Your task to perform on an android device: find which apps use the phone's location Image 0: 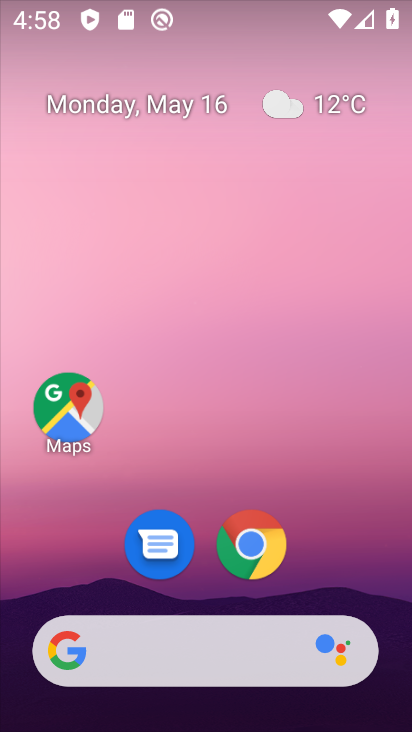
Step 0: drag from (328, 571) to (318, 116)
Your task to perform on an android device: find which apps use the phone's location Image 1: 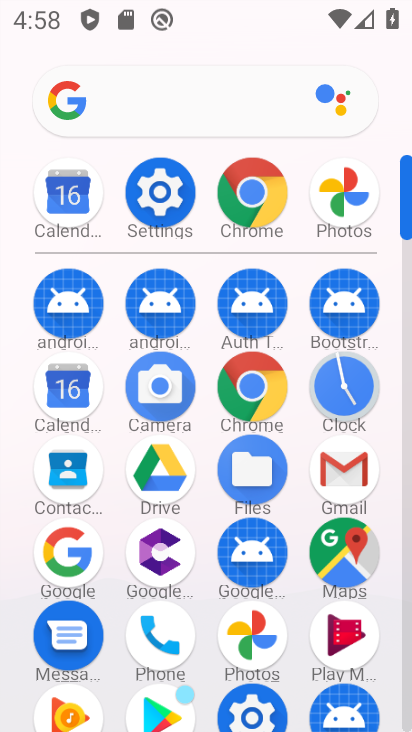
Step 1: click (157, 193)
Your task to perform on an android device: find which apps use the phone's location Image 2: 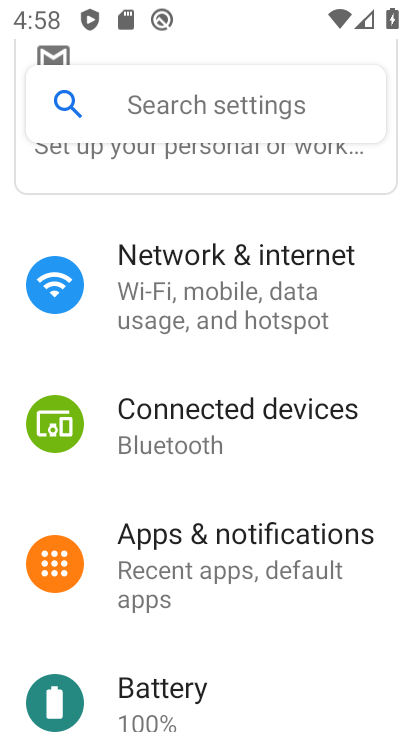
Step 2: drag from (229, 502) to (257, 430)
Your task to perform on an android device: find which apps use the phone's location Image 3: 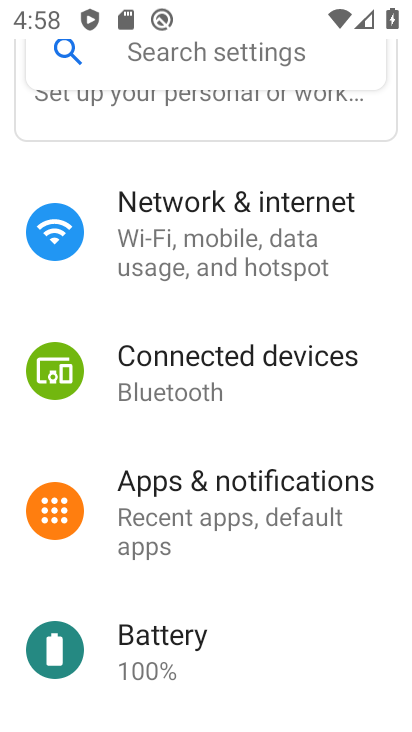
Step 3: drag from (215, 544) to (255, 452)
Your task to perform on an android device: find which apps use the phone's location Image 4: 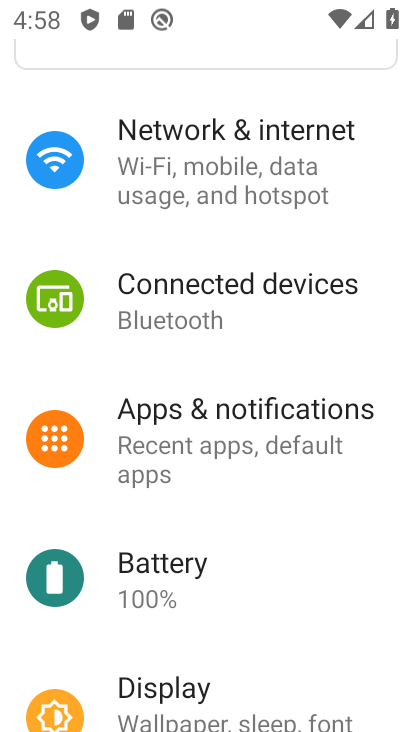
Step 4: drag from (215, 615) to (266, 512)
Your task to perform on an android device: find which apps use the phone's location Image 5: 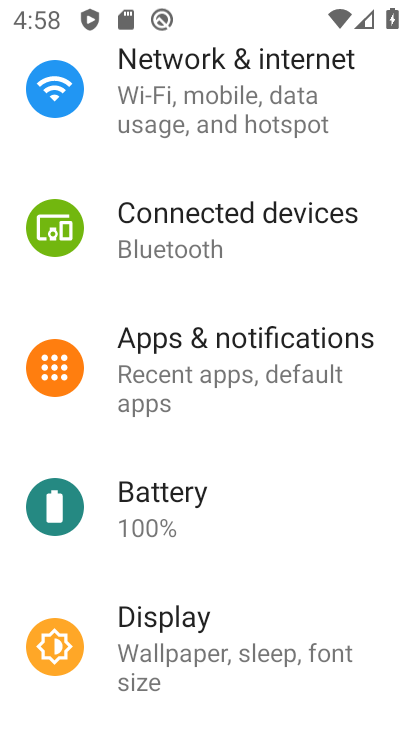
Step 5: drag from (234, 580) to (262, 456)
Your task to perform on an android device: find which apps use the phone's location Image 6: 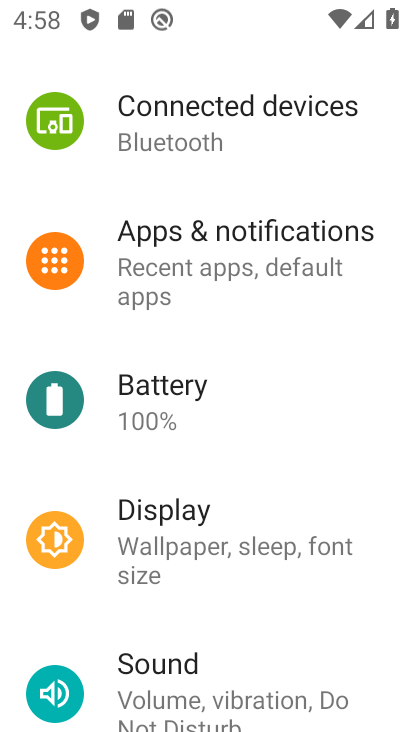
Step 6: drag from (188, 601) to (227, 501)
Your task to perform on an android device: find which apps use the phone's location Image 7: 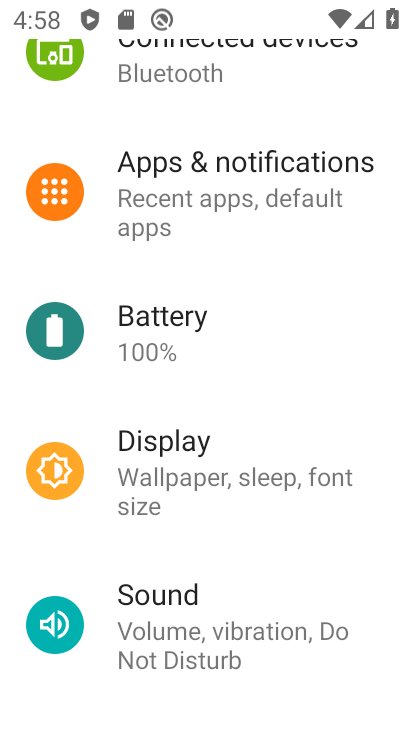
Step 7: drag from (225, 566) to (293, 464)
Your task to perform on an android device: find which apps use the phone's location Image 8: 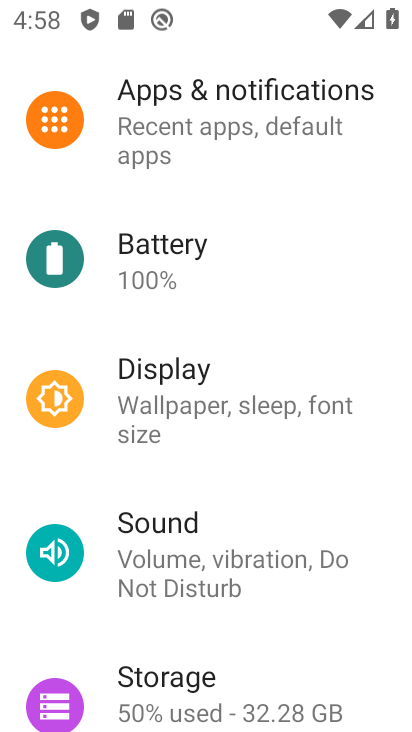
Step 8: drag from (224, 511) to (269, 422)
Your task to perform on an android device: find which apps use the phone's location Image 9: 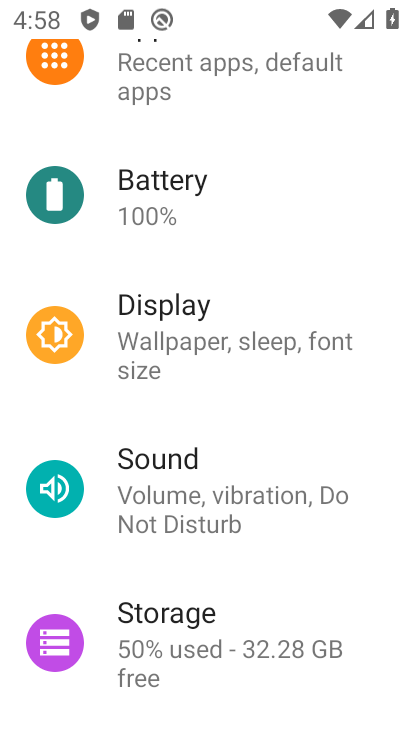
Step 9: drag from (170, 565) to (234, 447)
Your task to perform on an android device: find which apps use the phone's location Image 10: 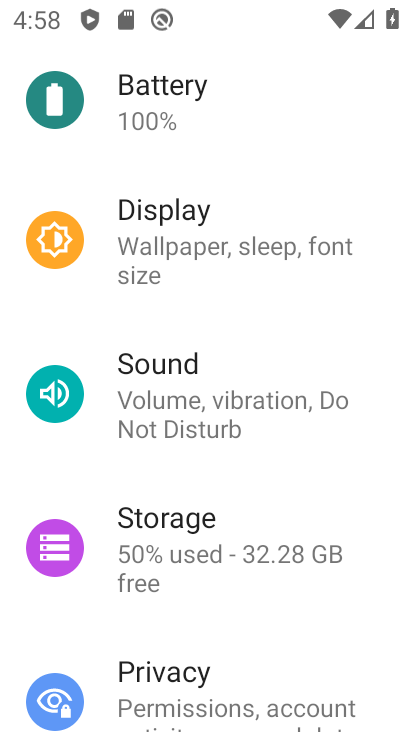
Step 10: drag from (145, 621) to (224, 487)
Your task to perform on an android device: find which apps use the phone's location Image 11: 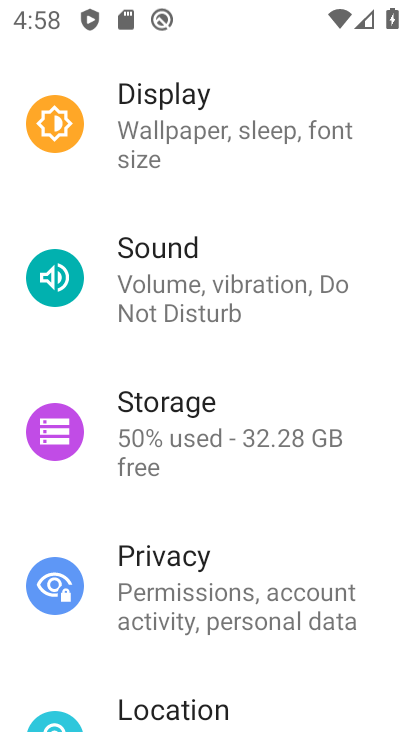
Step 11: drag from (161, 507) to (208, 376)
Your task to perform on an android device: find which apps use the phone's location Image 12: 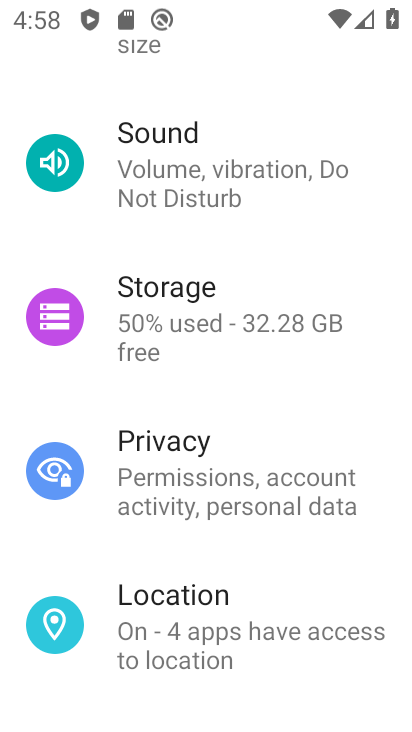
Step 12: click (158, 597)
Your task to perform on an android device: find which apps use the phone's location Image 13: 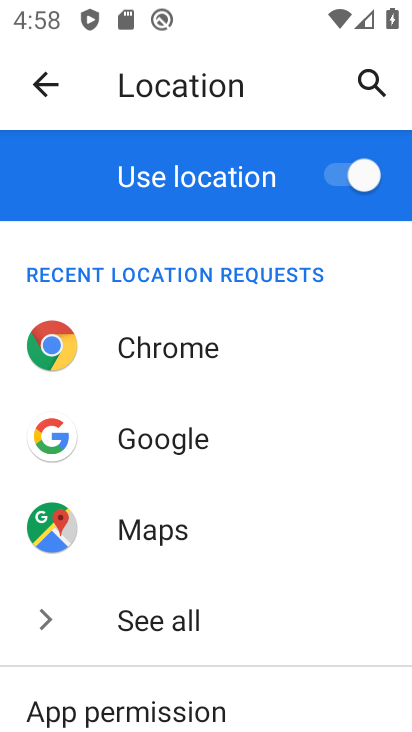
Step 13: drag from (202, 635) to (261, 524)
Your task to perform on an android device: find which apps use the phone's location Image 14: 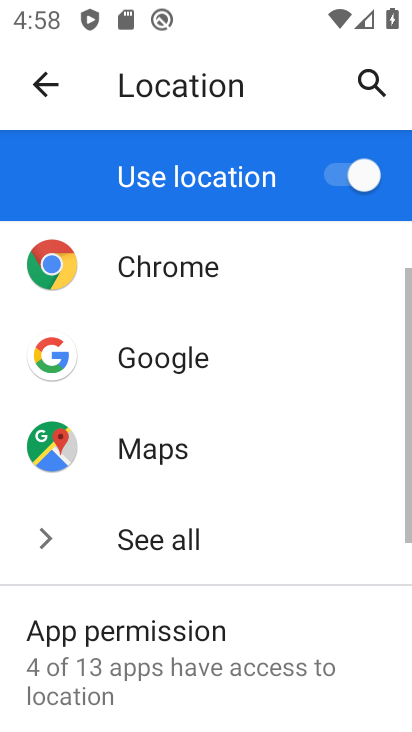
Step 14: drag from (177, 664) to (262, 536)
Your task to perform on an android device: find which apps use the phone's location Image 15: 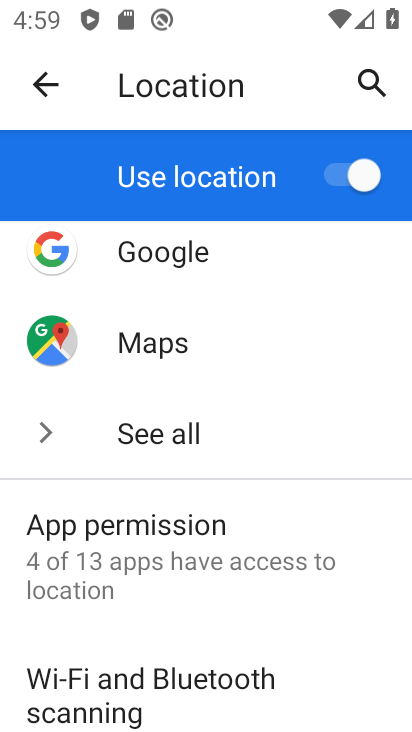
Step 15: drag from (183, 662) to (277, 523)
Your task to perform on an android device: find which apps use the phone's location Image 16: 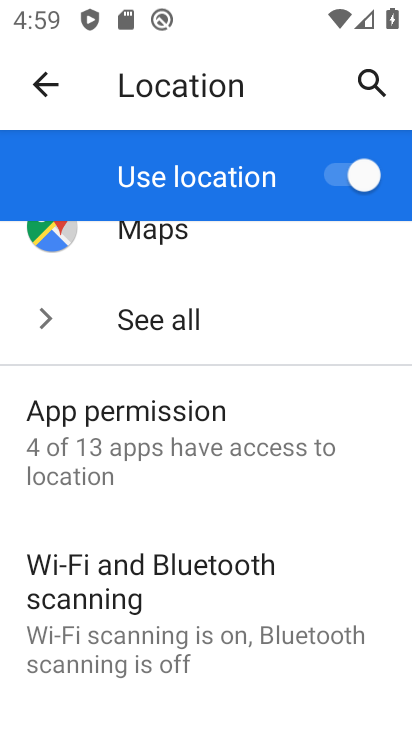
Step 16: drag from (195, 603) to (283, 499)
Your task to perform on an android device: find which apps use the phone's location Image 17: 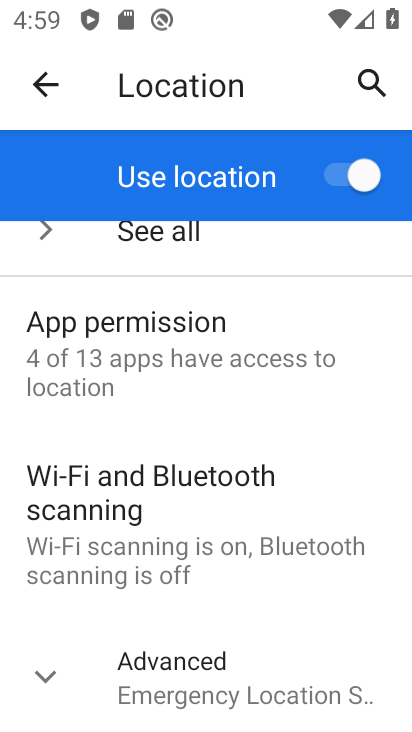
Step 17: click (210, 350)
Your task to perform on an android device: find which apps use the phone's location Image 18: 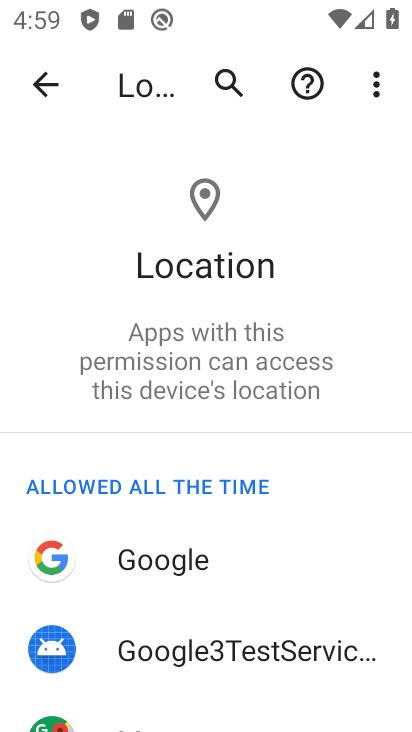
Step 18: drag from (219, 589) to (295, 374)
Your task to perform on an android device: find which apps use the phone's location Image 19: 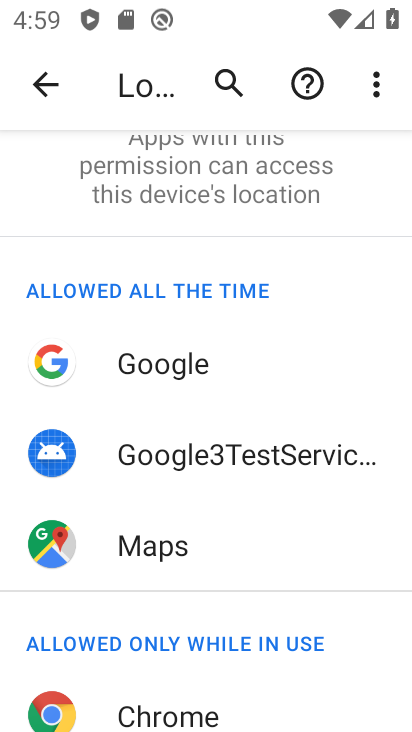
Step 19: click (154, 544)
Your task to perform on an android device: find which apps use the phone's location Image 20: 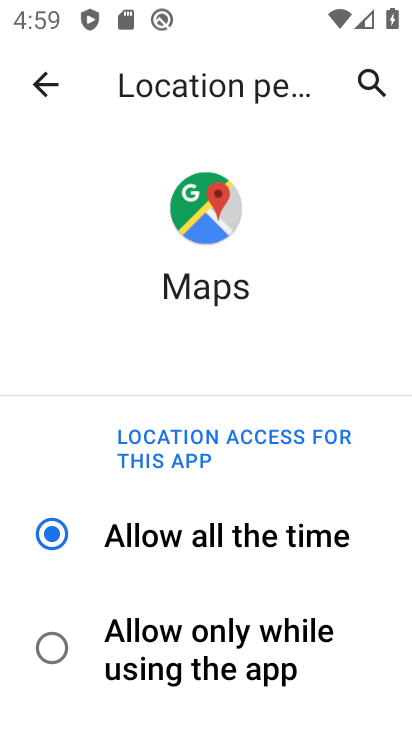
Step 20: task complete